Your task to perform on an android device: refresh tabs in the chrome app Image 0: 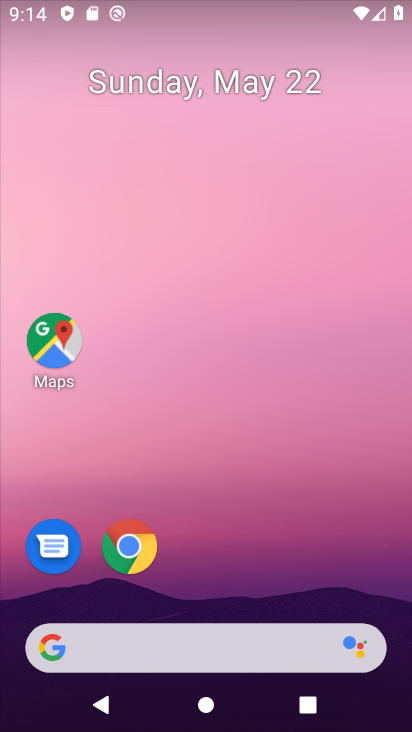
Step 0: click (140, 541)
Your task to perform on an android device: refresh tabs in the chrome app Image 1: 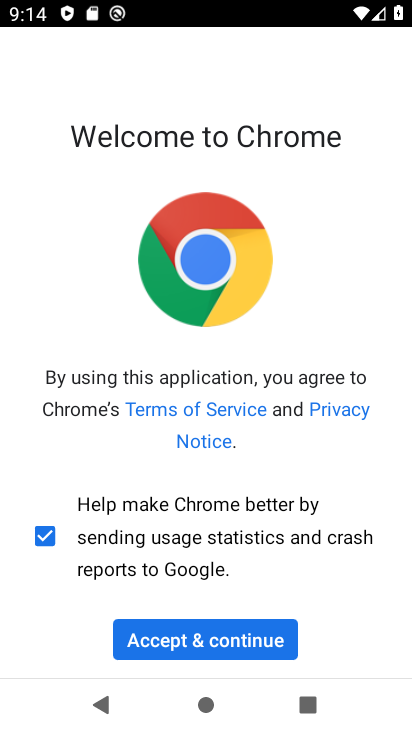
Step 1: click (201, 646)
Your task to perform on an android device: refresh tabs in the chrome app Image 2: 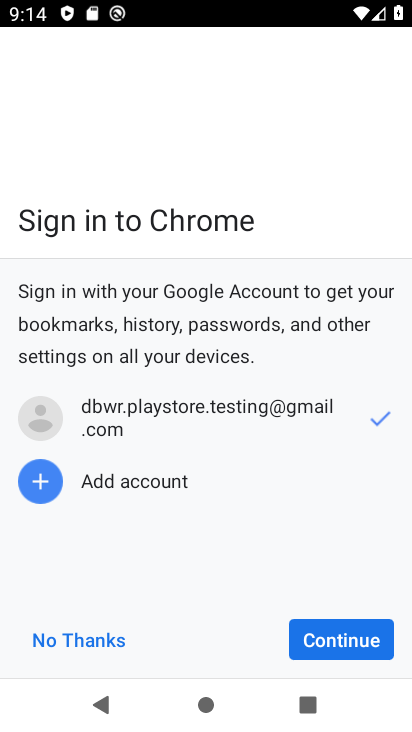
Step 2: click (331, 636)
Your task to perform on an android device: refresh tabs in the chrome app Image 3: 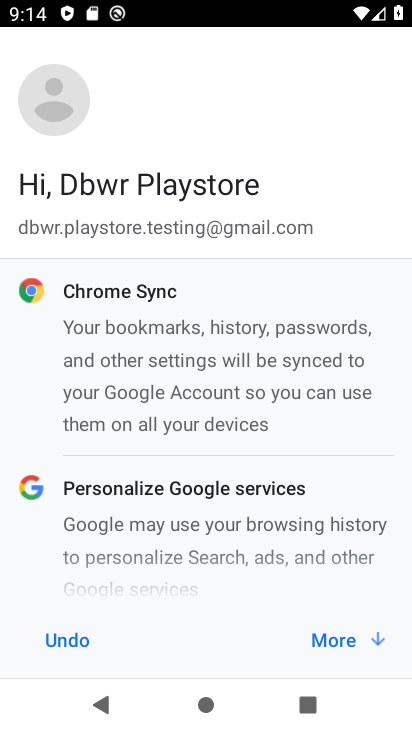
Step 3: click (332, 636)
Your task to perform on an android device: refresh tabs in the chrome app Image 4: 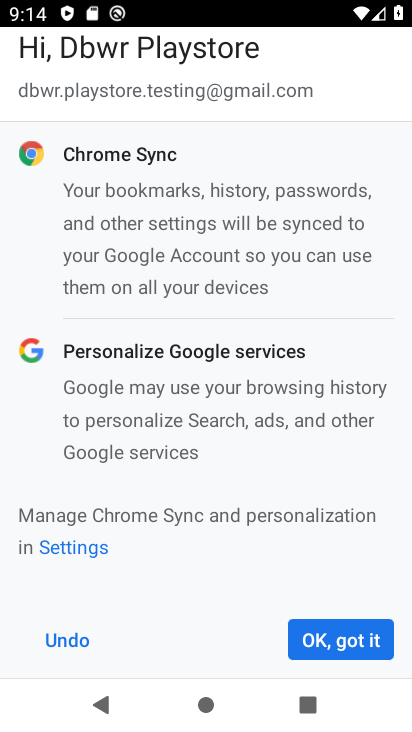
Step 4: click (332, 636)
Your task to perform on an android device: refresh tabs in the chrome app Image 5: 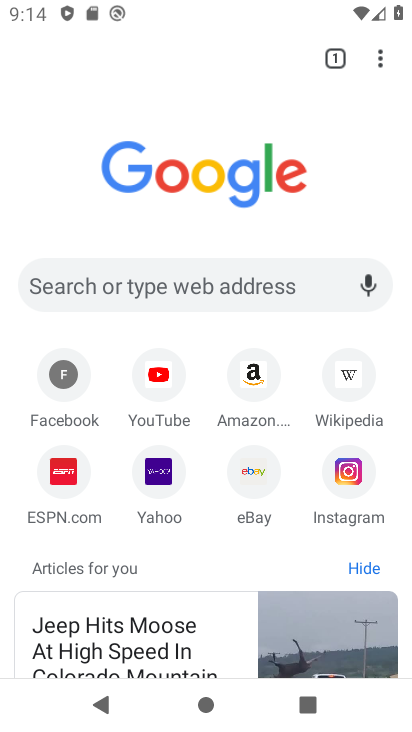
Step 5: click (379, 57)
Your task to perform on an android device: refresh tabs in the chrome app Image 6: 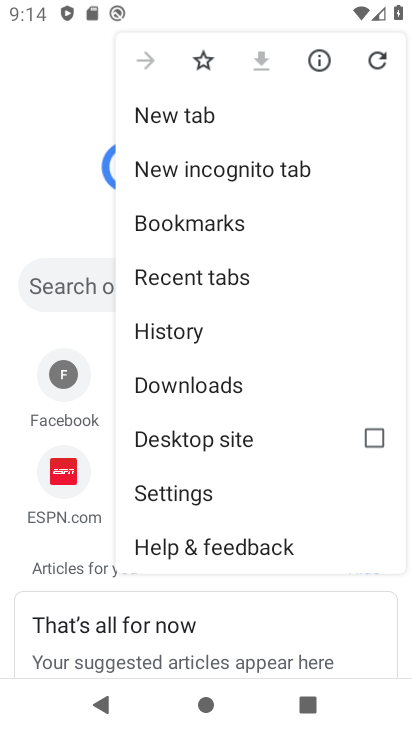
Step 6: click (379, 57)
Your task to perform on an android device: refresh tabs in the chrome app Image 7: 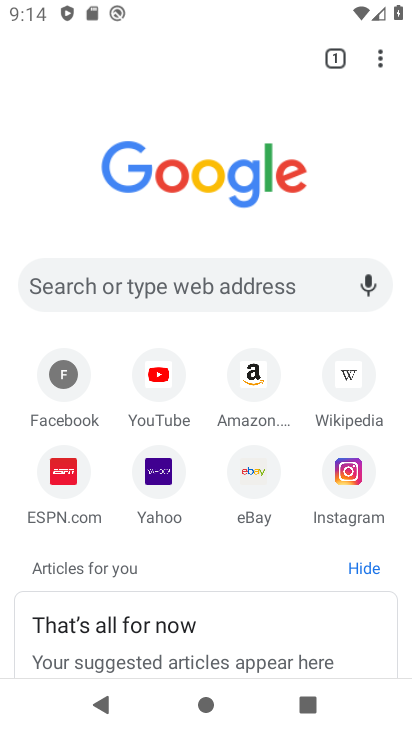
Step 7: task complete